Your task to perform on an android device: Open Google Maps and go to "Timeline" Image 0: 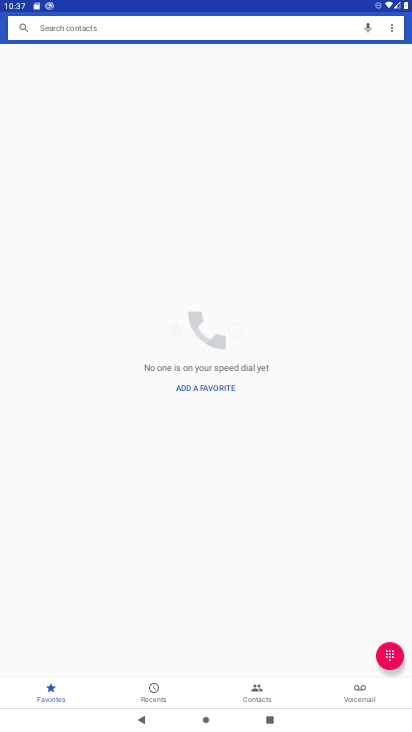
Step 0: press home button
Your task to perform on an android device: Open Google Maps and go to "Timeline" Image 1: 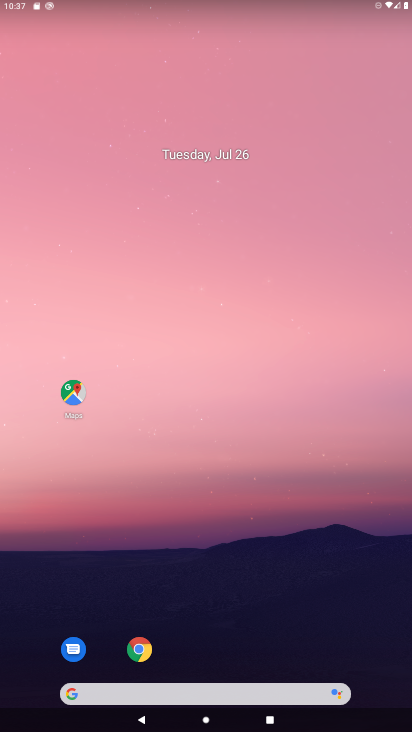
Step 1: drag from (138, 683) to (112, 225)
Your task to perform on an android device: Open Google Maps and go to "Timeline" Image 2: 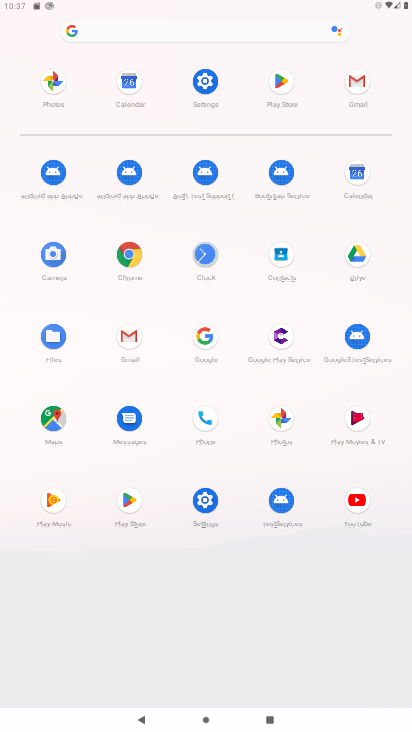
Step 2: click (52, 410)
Your task to perform on an android device: Open Google Maps and go to "Timeline" Image 3: 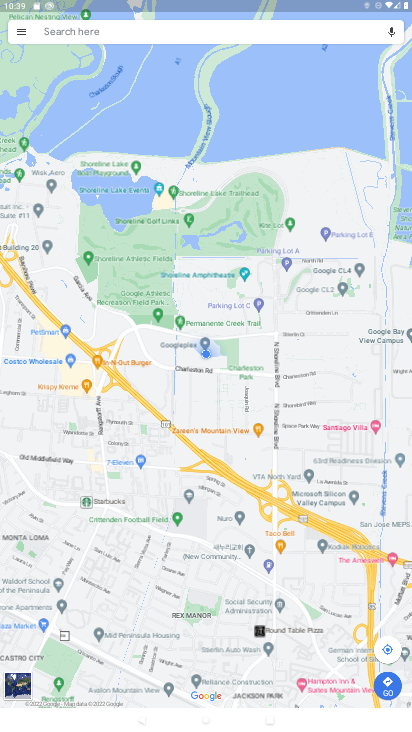
Step 3: click (23, 32)
Your task to perform on an android device: Open Google Maps and go to "Timeline" Image 4: 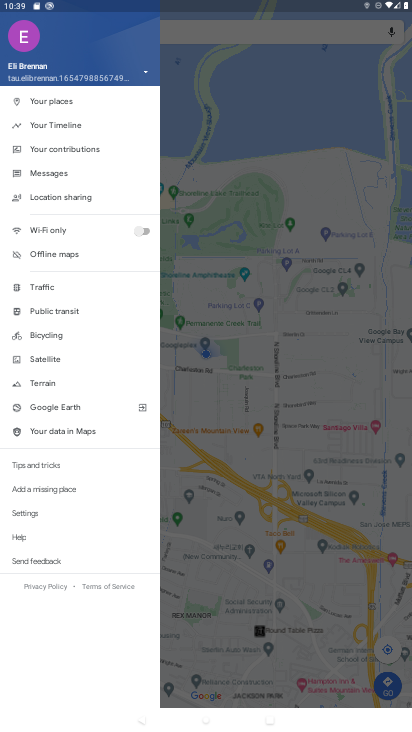
Step 4: click (61, 127)
Your task to perform on an android device: Open Google Maps and go to "Timeline" Image 5: 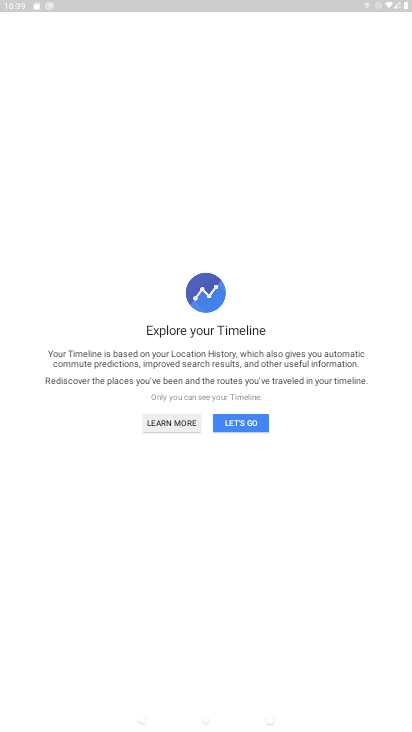
Step 5: click (253, 415)
Your task to perform on an android device: Open Google Maps and go to "Timeline" Image 6: 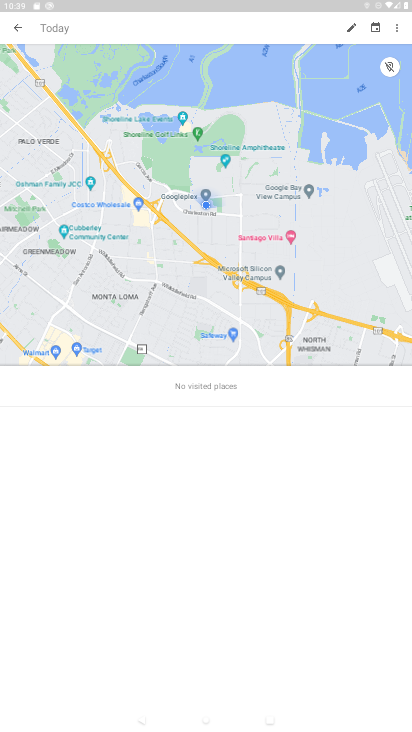
Step 6: task complete